Your task to perform on an android device: Open Google Chrome and click the shortcut for Amazon.com Image 0: 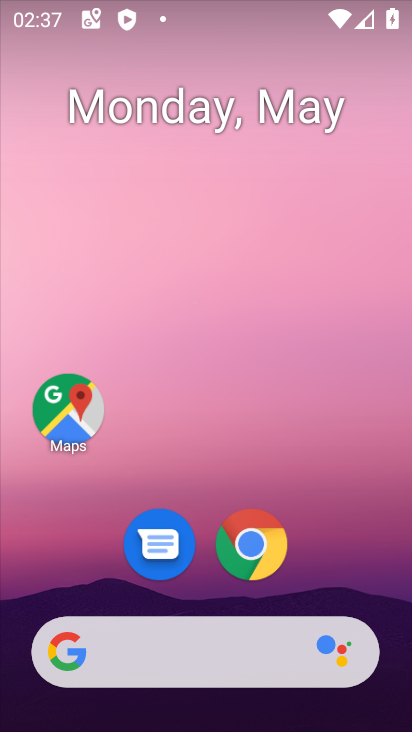
Step 0: drag from (350, 495) to (355, 135)
Your task to perform on an android device: Open Google Chrome and click the shortcut for Amazon.com Image 1: 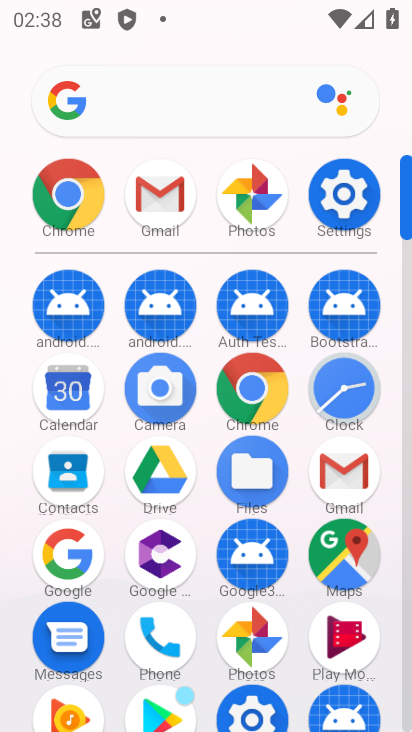
Step 1: click (263, 385)
Your task to perform on an android device: Open Google Chrome and click the shortcut for Amazon.com Image 2: 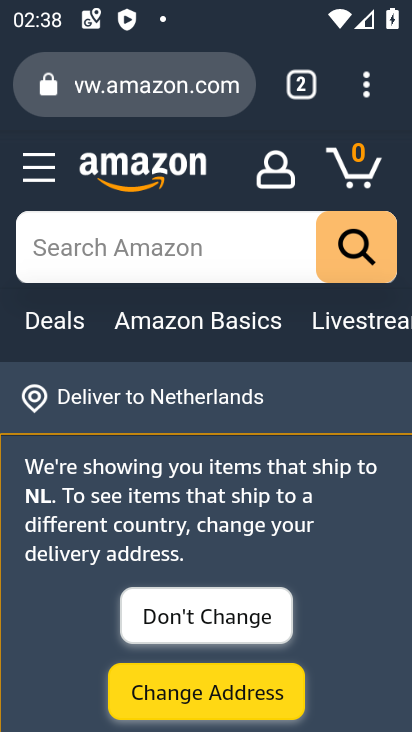
Step 2: task complete